Your task to perform on an android device: Open sound settings Image 0: 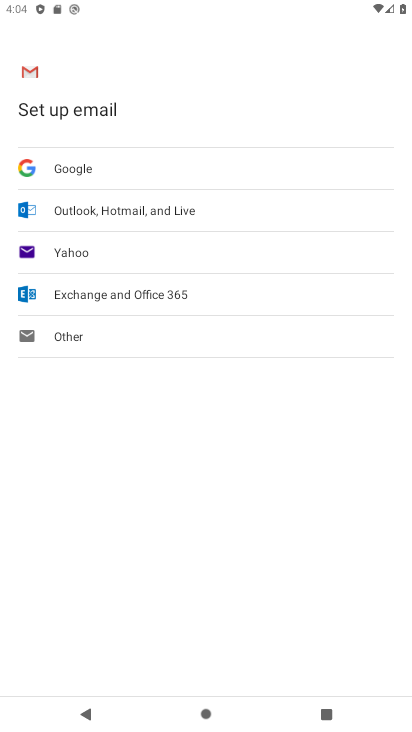
Step 0: press home button
Your task to perform on an android device: Open sound settings Image 1: 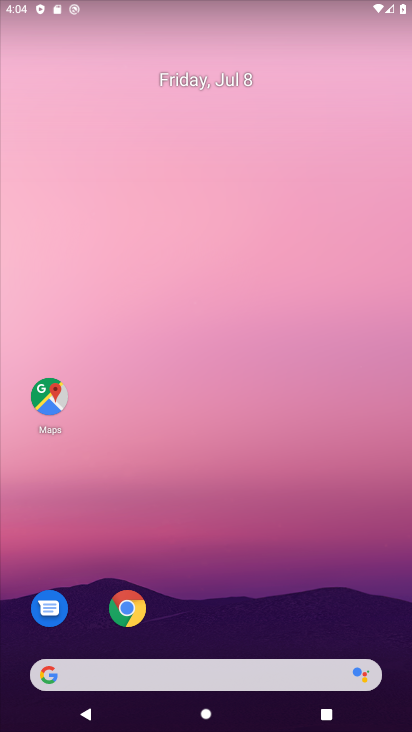
Step 1: drag from (327, 529) to (354, 4)
Your task to perform on an android device: Open sound settings Image 2: 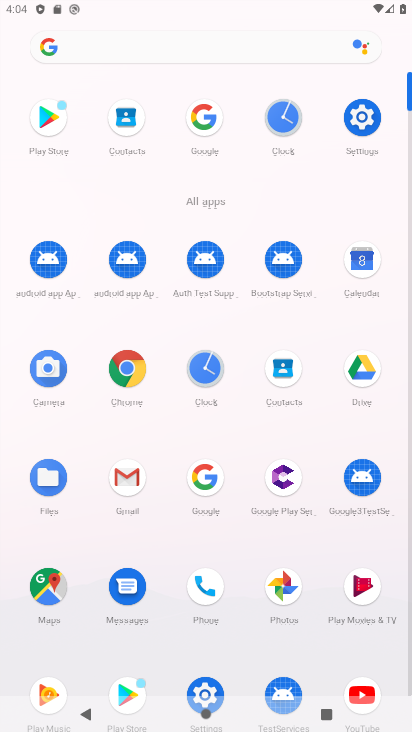
Step 2: click (362, 102)
Your task to perform on an android device: Open sound settings Image 3: 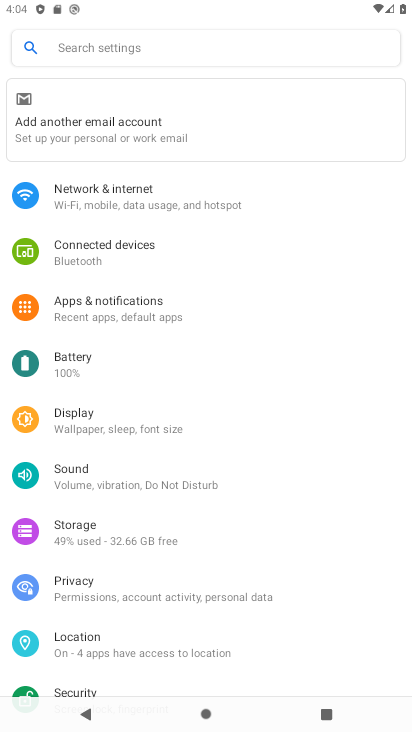
Step 3: click (134, 476)
Your task to perform on an android device: Open sound settings Image 4: 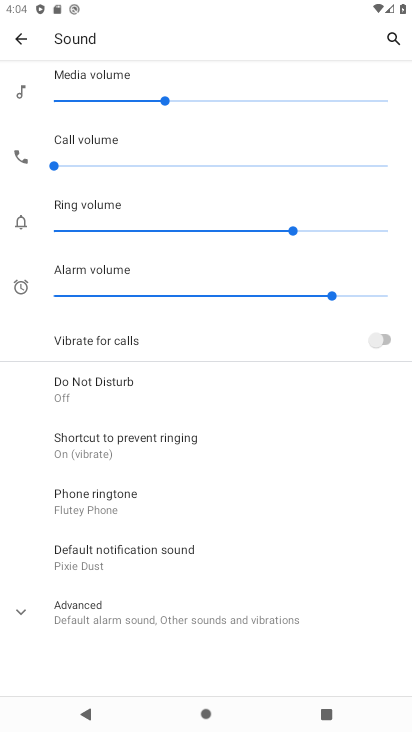
Step 4: task complete